Your task to perform on an android device: change keyboard looks Image 0: 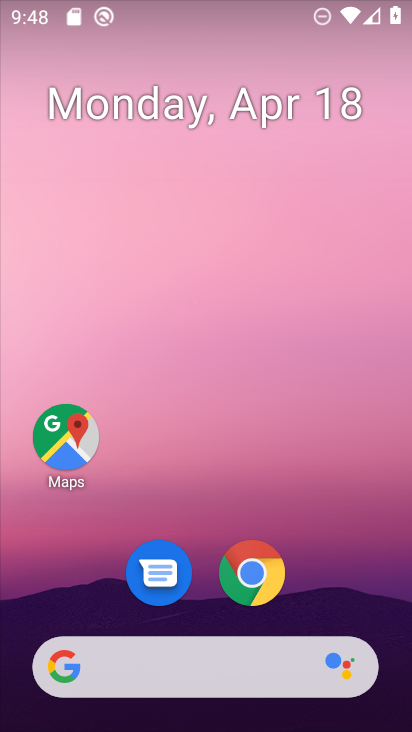
Step 0: drag from (308, 121) to (284, 57)
Your task to perform on an android device: change keyboard looks Image 1: 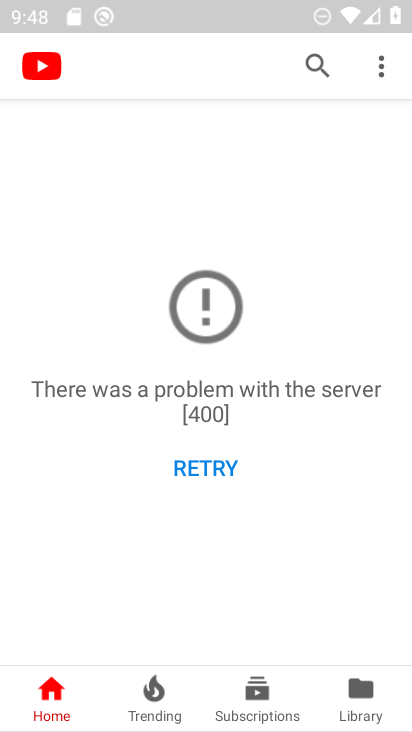
Step 1: press home button
Your task to perform on an android device: change keyboard looks Image 2: 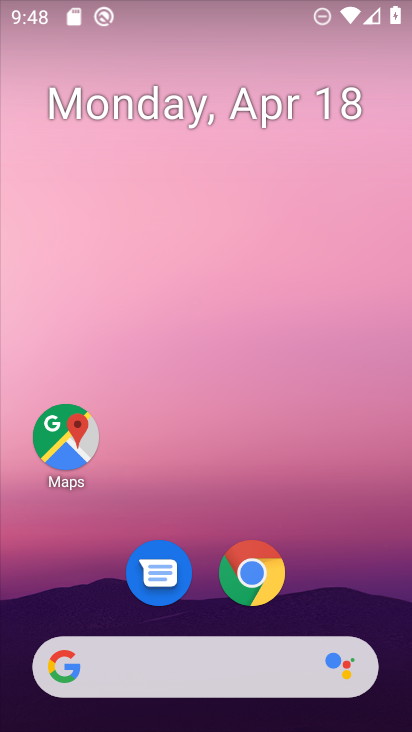
Step 2: drag from (344, 603) to (247, 0)
Your task to perform on an android device: change keyboard looks Image 3: 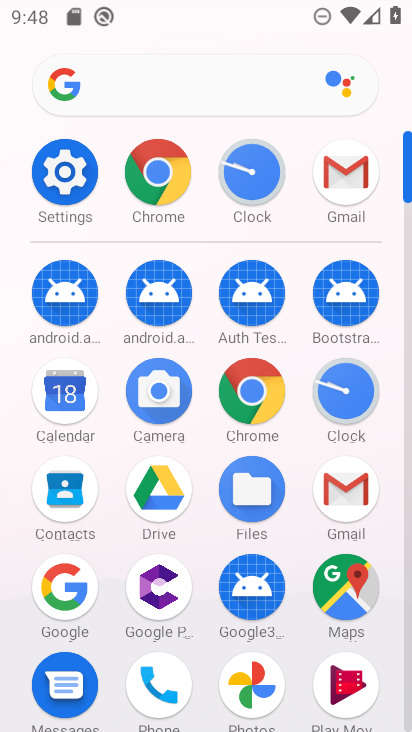
Step 3: click (73, 187)
Your task to perform on an android device: change keyboard looks Image 4: 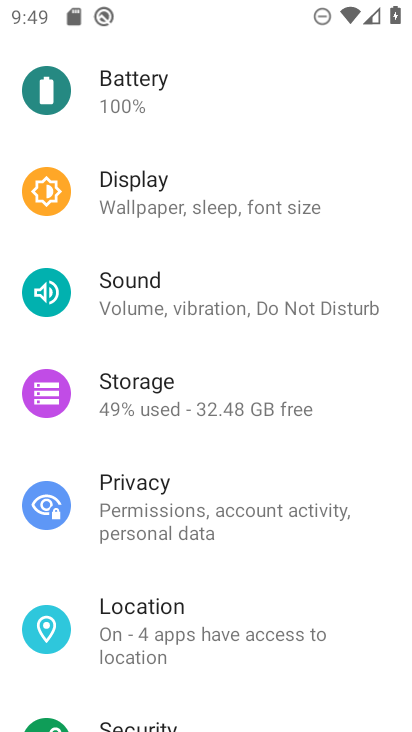
Step 4: drag from (161, 611) to (104, 46)
Your task to perform on an android device: change keyboard looks Image 5: 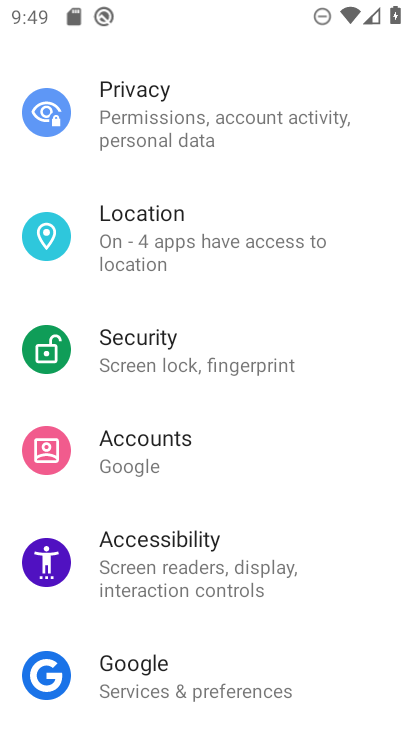
Step 5: drag from (157, 628) to (130, 63)
Your task to perform on an android device: change keyboard looks Image 6: 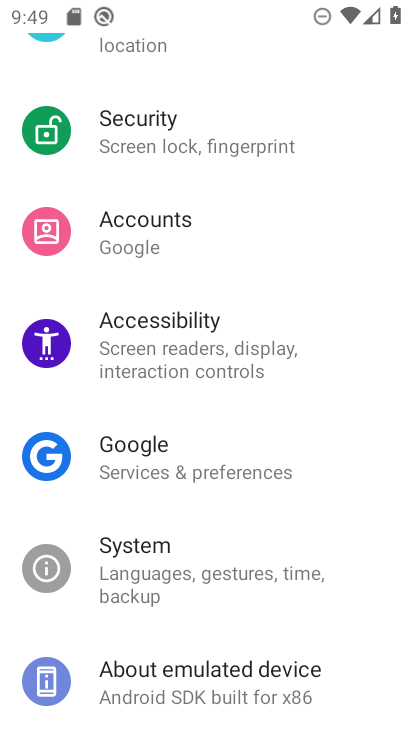
Step 6: click (183, 613)
Your task to perform on an android device: change keyboard looks Image 7: 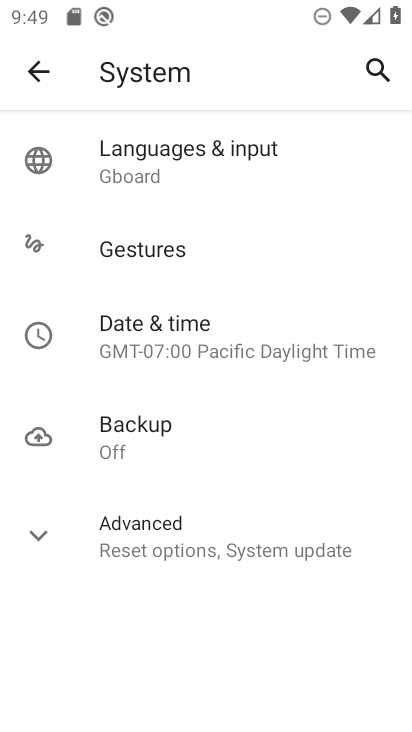
Step 7: click (158, 158)
Your task to perform on an android device: change keyboard looks Image 8: 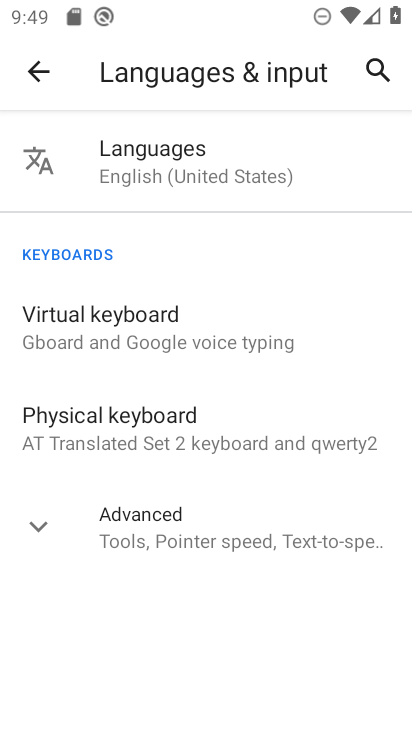
Step 8: click (82, 345)
Your task to perform on an android device: change keyboard looks Image 9: 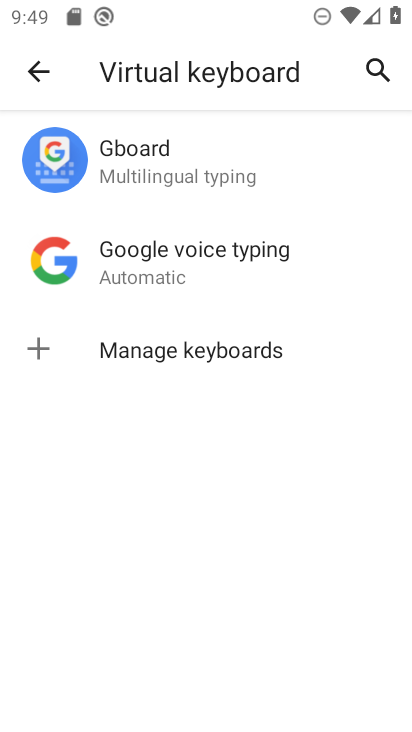
Step 9: click (173, 177)
Your task to perform on an android device: change keyboard looks Image 10: 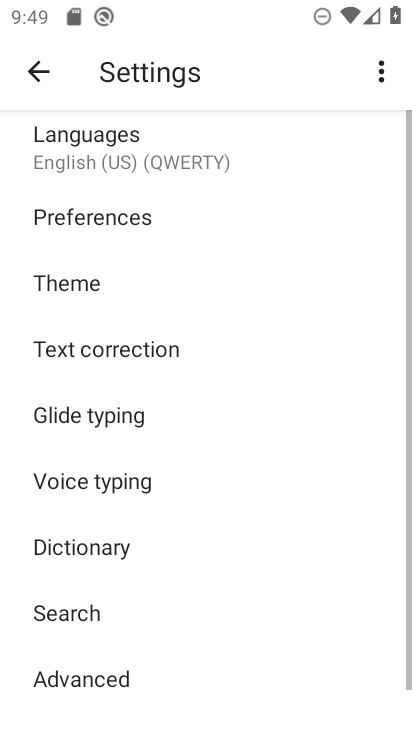
Step 10: click (61, 293)
Your task to perform on an android device: change keyboard looks Image 11: 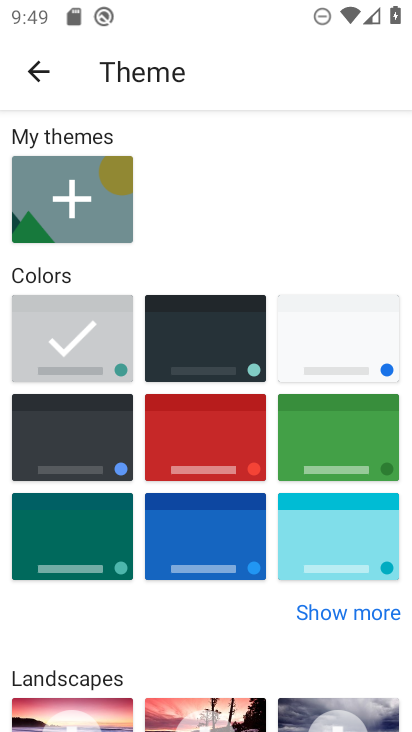
Step 11: click (188, 316)
Your task to perform on an android device: change keyboard looks Image 12: 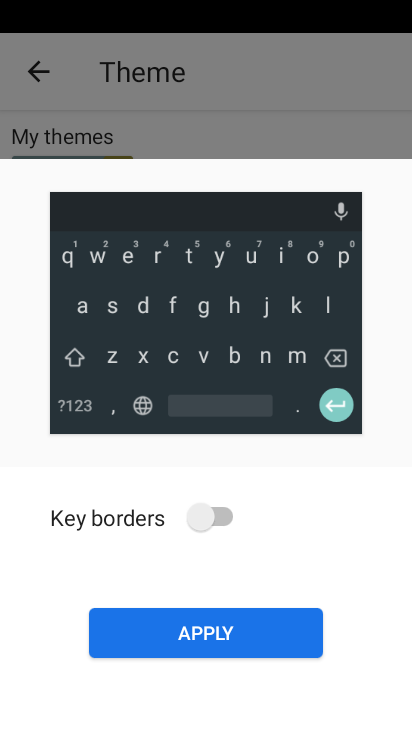
Step 12: click (208, 624)
Your task to perform on an android device: change keyboard looks Image 13: 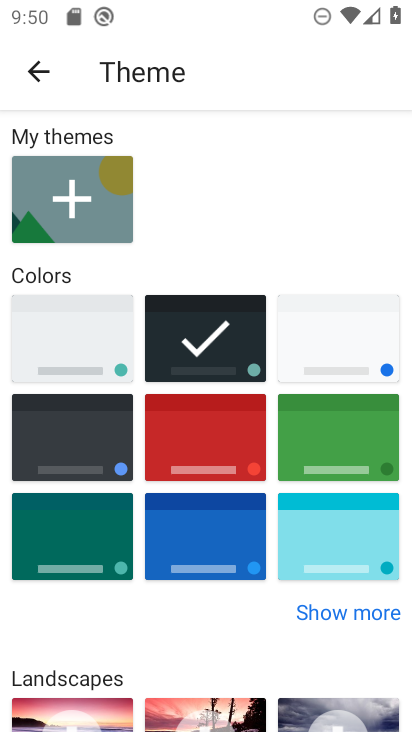
Step 13: task complete